Your task to perform on an android device: Do I have any events today? Image 0: 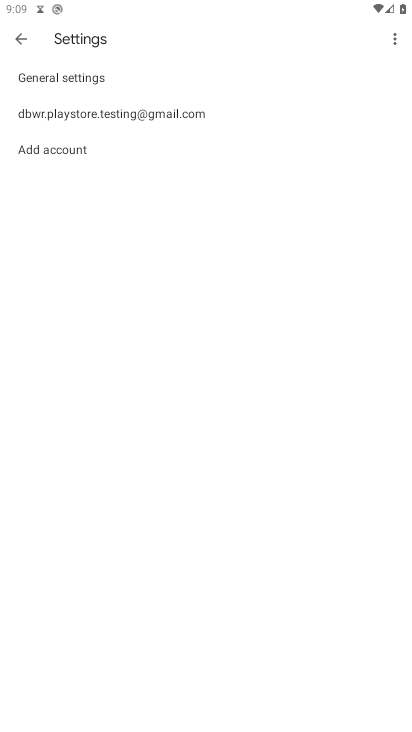
Step 0: press home button
Your task to perform on an android device: Do I have any events today? Image 1: 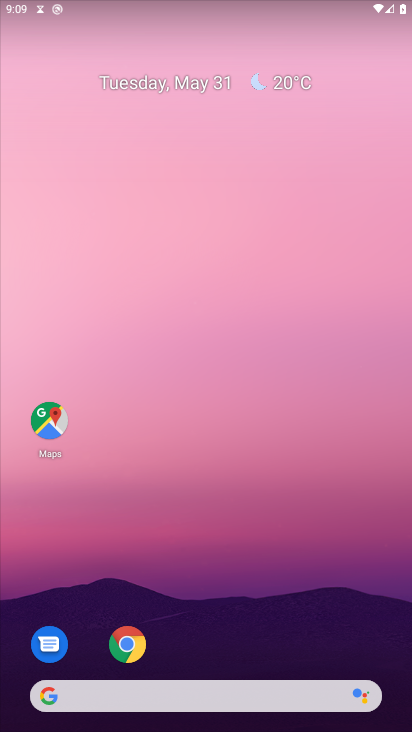
Step 1: drag from (209, 658) to (252, 34)
Your task to perform on an android device: Do I have any events today? Image 2: 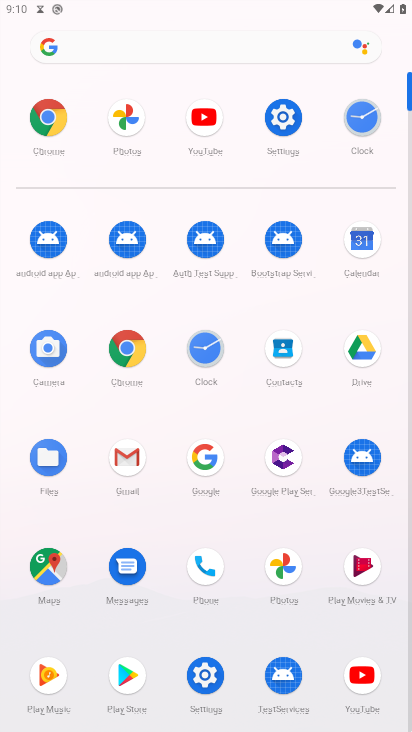
Step 2: click (356, 239)
Your task to perform on an android device: Do I have any events today? Image 3: 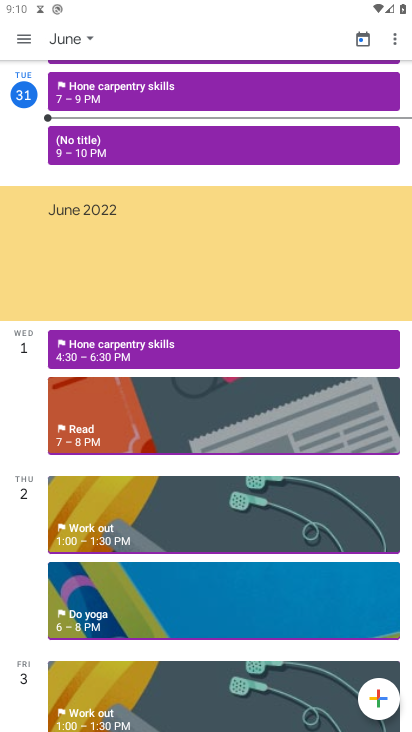
Step 3: click (32, 104)
Your task to perform on an android device: Do I have any events today? Image 4: 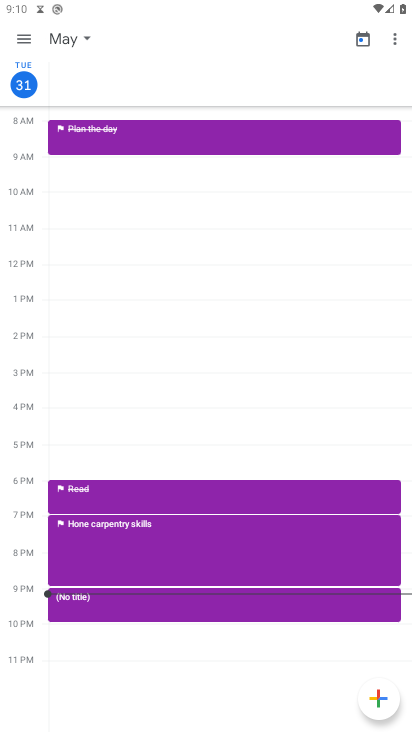
Step 4: task complete